Your task to perform on an android device: turn on translation in the chrome app Image 0: 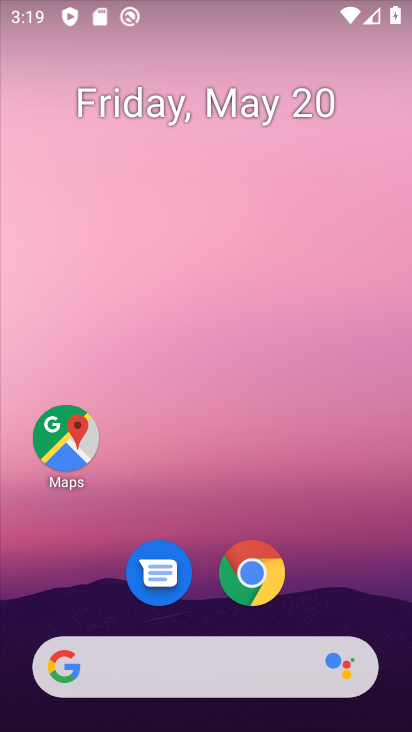
Step 0: click (242, 579)
Your task to perform on an android device: turn on translation in the chrome app Image 1: 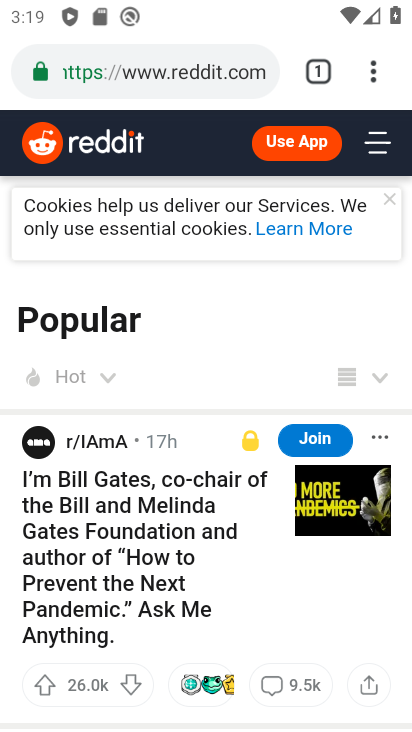
Step 1: click (371, 62)
Your task to perform on an android device: turn on translation in the chrome app Image 2: 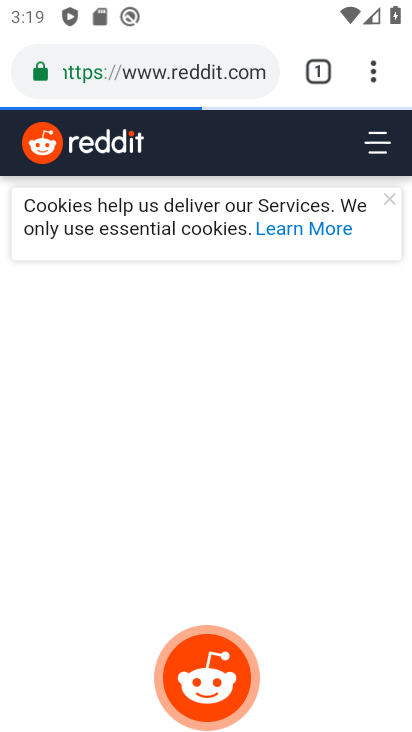
Step 2: drag from (373, 74) to (93, 574)
Your task to perform on an android device: turn on translation in the chrome app Image 3: 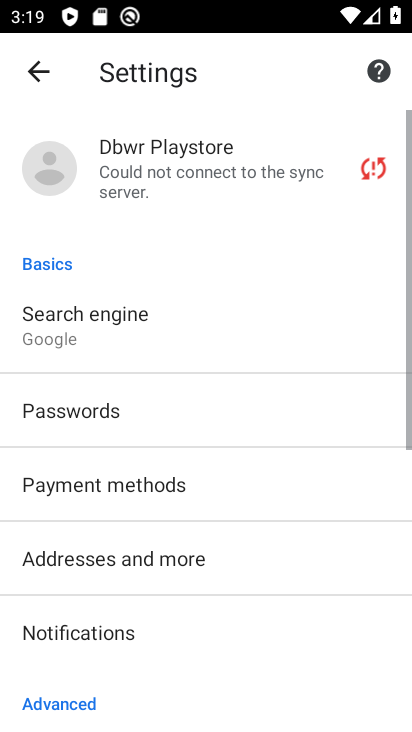
Step 3: drag from (240, 634) to (178, 62)
Your task to perform on an android device: turn on translation in the chrome app Image 4: 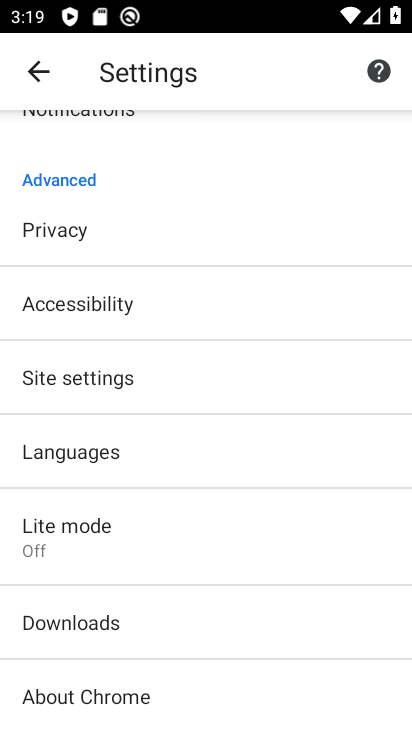
Step 4: click (50, 463)
Your task to perform on an android device: turn on translation in the chrome app Image 5: 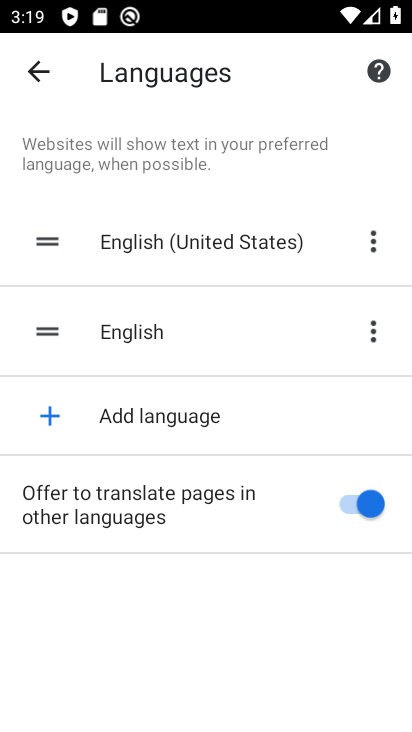
Step 5: task complete